Your task to perform on an android device: Open the web browser Image 0: 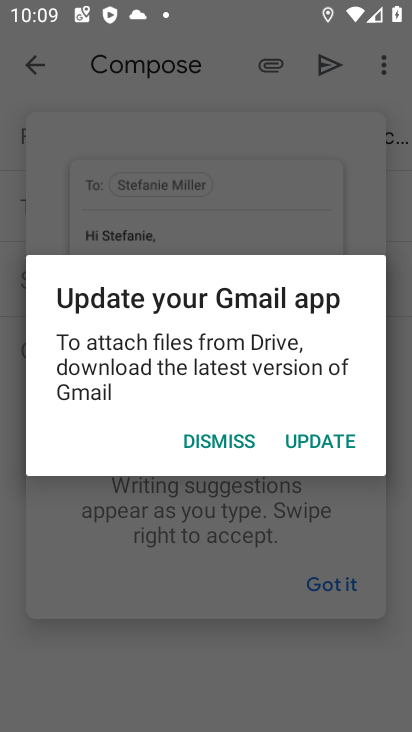
Step 0: press home button
Your task to perform on an android device: Open the web browser Image 1: 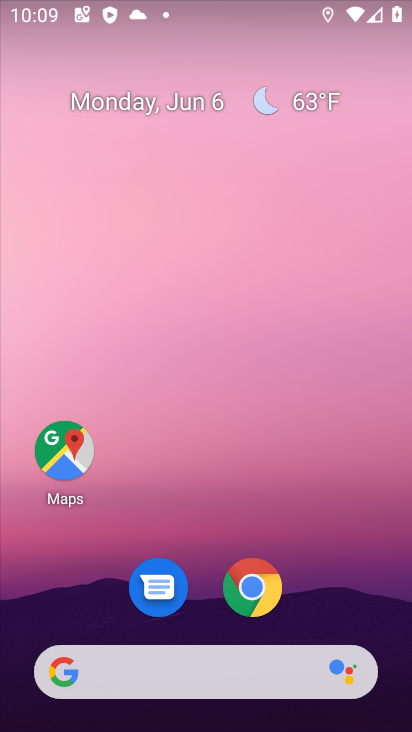
Step 1: click (243, 596)
Your task to perform on an android device: Open the web browser Image 2: 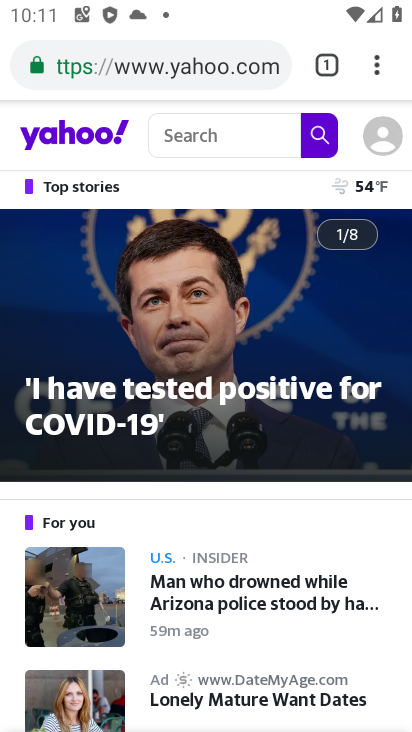
Step 2: task complete